Your task to perform on an android device: Open Google Maps Image 0: 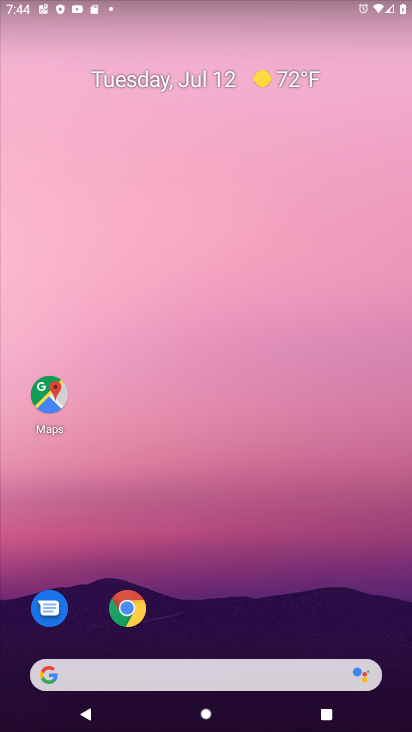
Step 0: drag from (293, 603) to (325, 136)
Your task to perform on an android device: Open Google Maps Image 1: 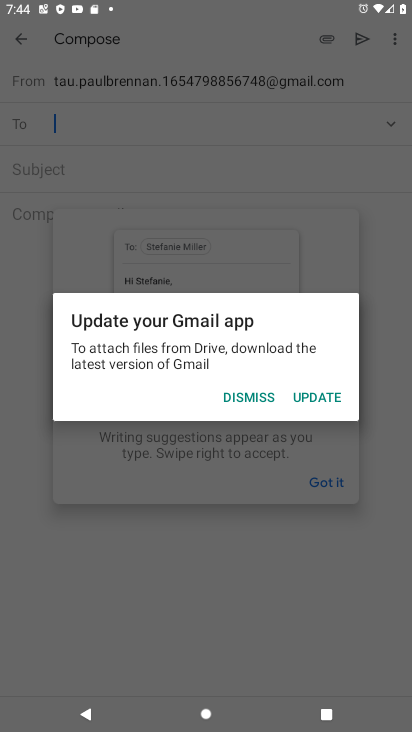
Step 1: press home button
Your task to perform on an android device: Open Google Maps Image 2: 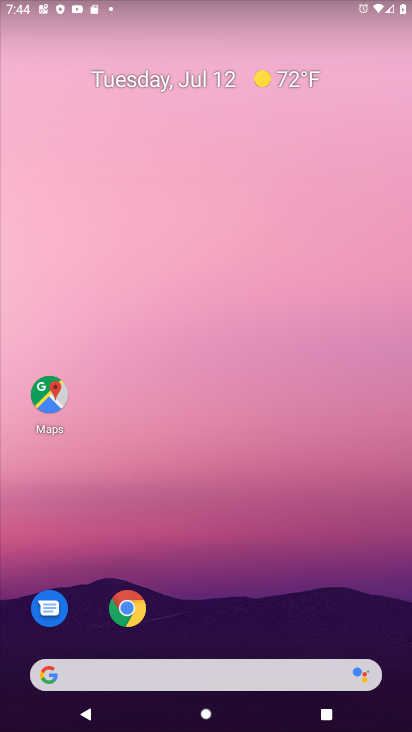
Step 2: drag from (354, 613) to (353, 110)
Your task to perform on an android device: Open Google Maps Image 3: 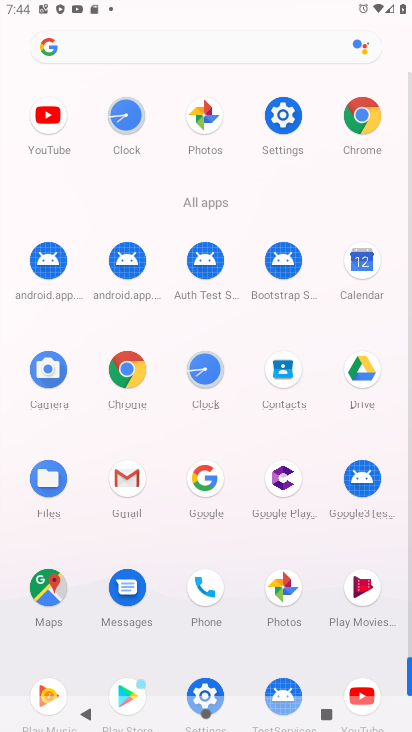
Step 3: click (47, 595)
Your task to perform on an android device: Open Google Maps Image 4: 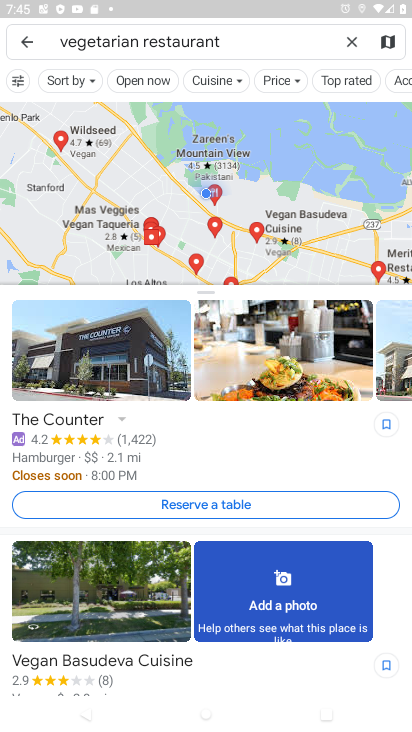
Step 4: task complete